Your task to perform on an android device: toggle notifications settings in the gmail app Image 0: 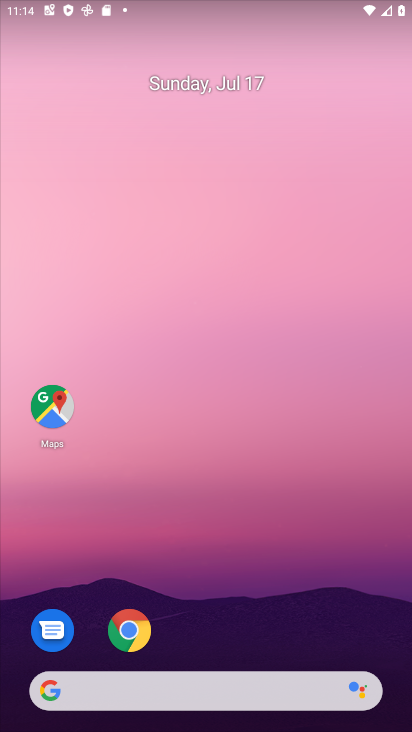
Step 0: click (133, 625)
Your task to perform on an android device: toggle notifications settings in the gmail app Image 1: 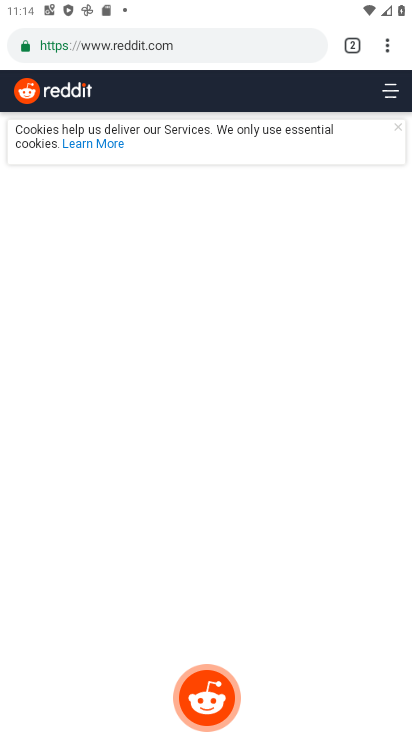
Step 1: click (393, 43)
Your task to perform on an android device: toggle notifications settings in the gmail app Image 2: 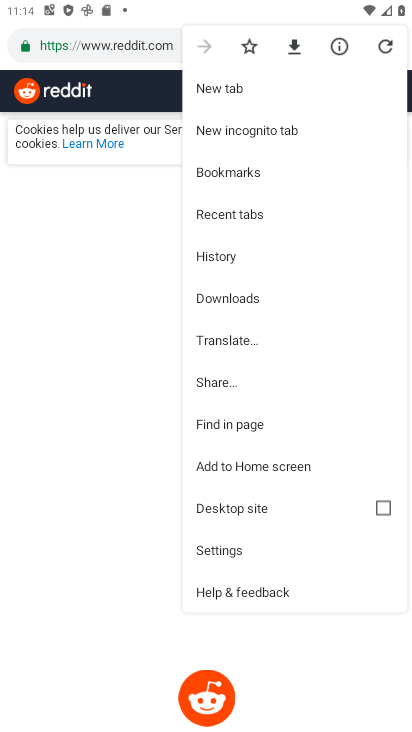
Step 2: click (253, 541)
Your task to perform on an android device: toggle notifications settings in the gmail app Image 3: 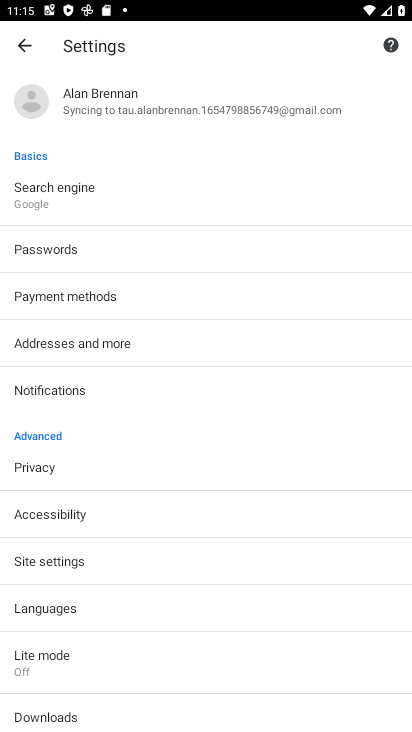
Step 3: click (197, 392)
Your task to perform on an android device: toggle notifications settings in the gmail app Image 4: 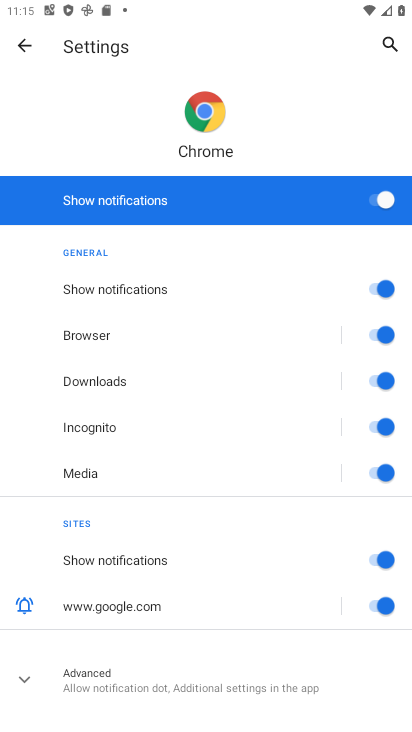
Step 4: click (392, 211)
Your task to perform on an android device: toggle notifications settings in the gmail app Image 5: 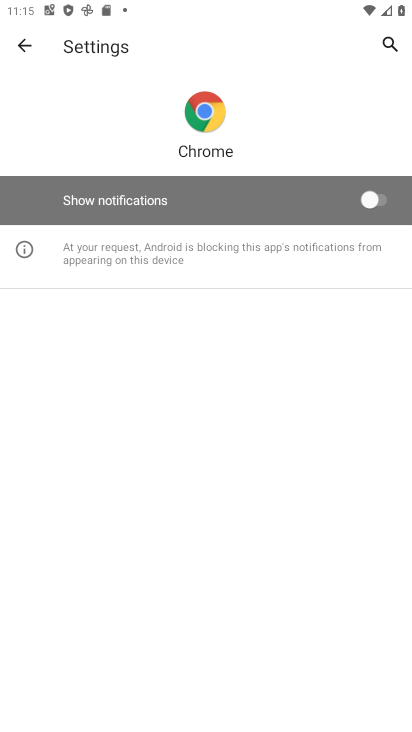
Step 5: task complete